Your task to perform on an android device: toggle translation in the chrome app Image 0: 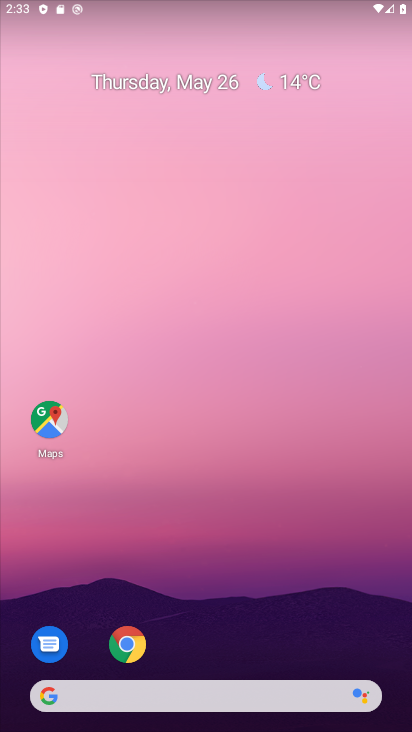
Step 0: drag from (311, 450) to (276, 216)
Your task to perform on an android device: toggle translation in the chrome app Image 1: 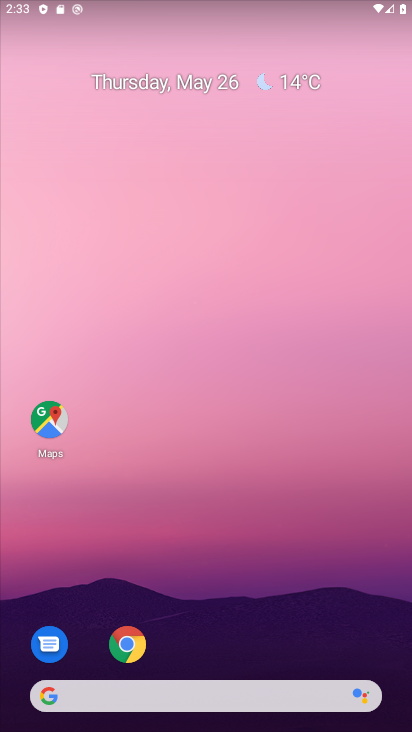
Step 1: drag from (312, 597) to (314, 231)
Your task to perform on an android device: toggle translation in the chrome app Image 2: 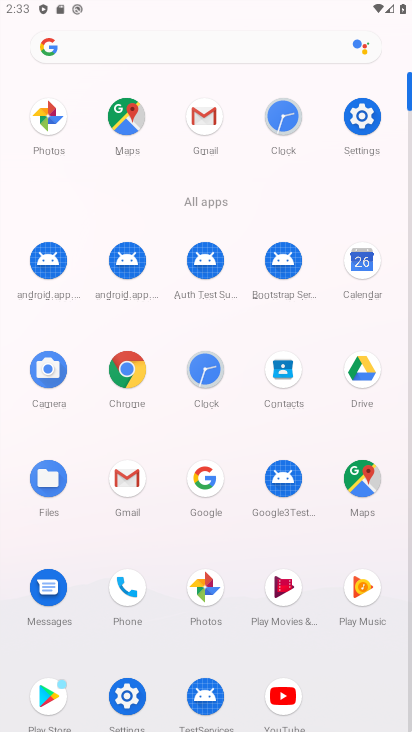
Step 2: click (123, 373)
Your task to perform on an android device: toggle translation in the chrome app Image 3: 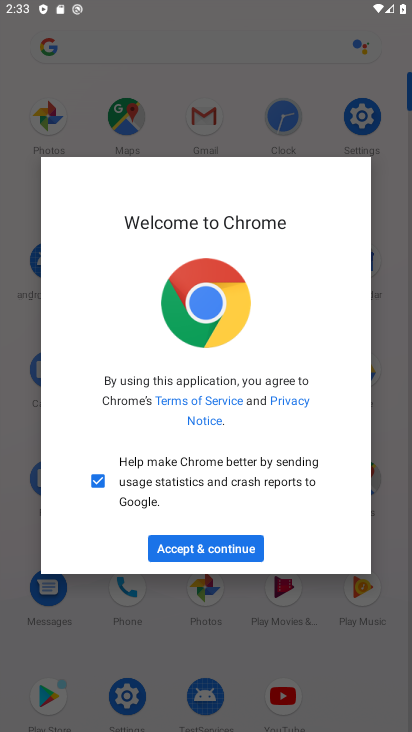
Step 3: click (231, 544)
Your task to perform on an android device: toggle translation in the chrome app Image 4: 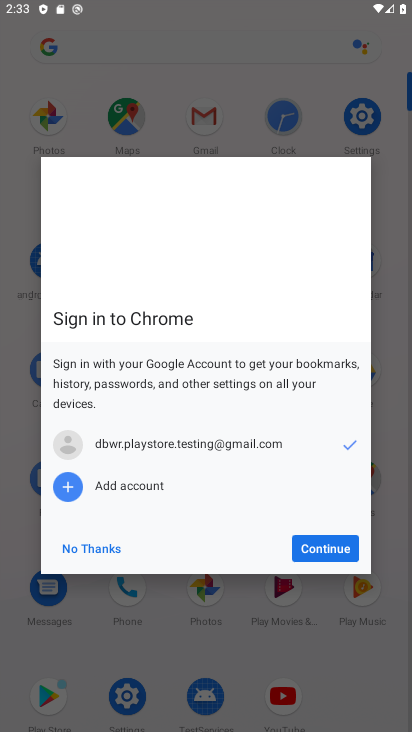
Step 4: click (322, 546)
Your task to perform on an android device: toggle translation in the chrome app Image 5: 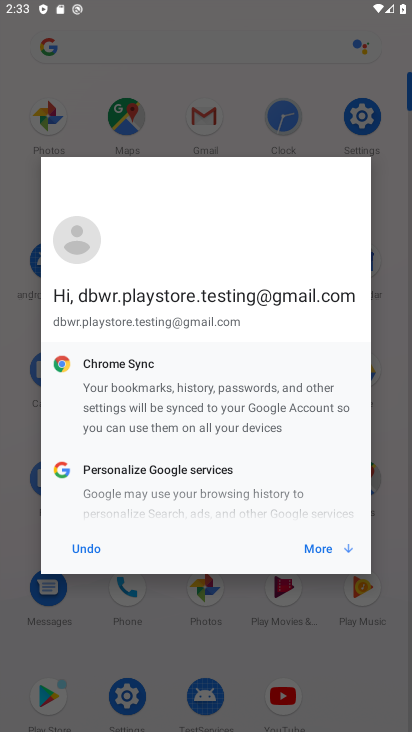
Step 5: click (320, 546)
Your task to perform on an android device: toggle translation in the chrome app Image 6: 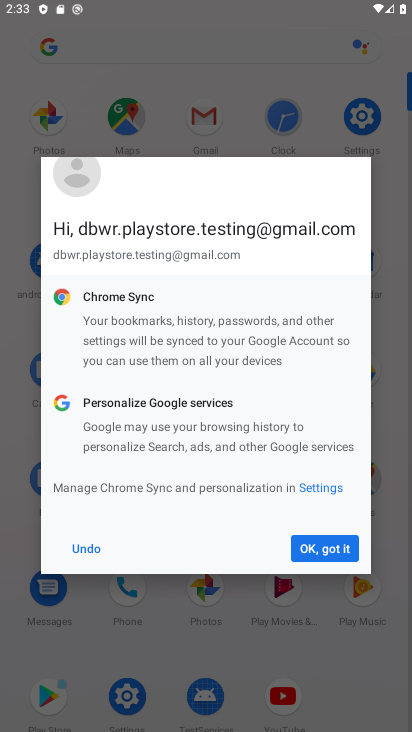
Step 6: click (320, 546)
Your task to perform on an android device: toggle translation in the chrome app Image 7: 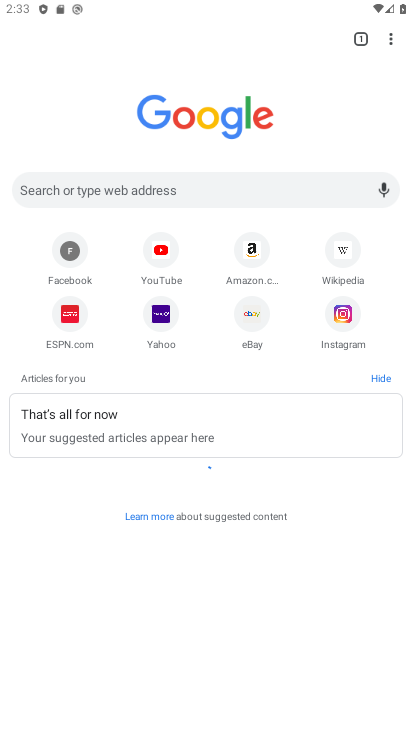
Step 7: drag from (391, 59) to (249, 326)
Your task to perform on an android device: toggle translation in the chrome app Image 8: 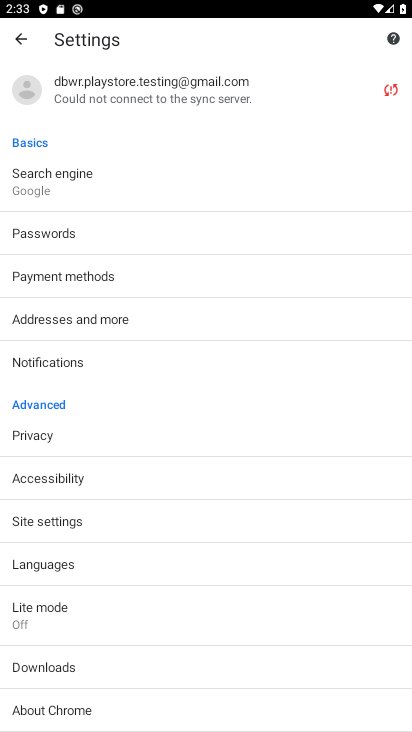
Step 8: drag from (149, 606) to (172, 428)
Your task to perform on an android device: toggle translation in the chrome app Image 9: 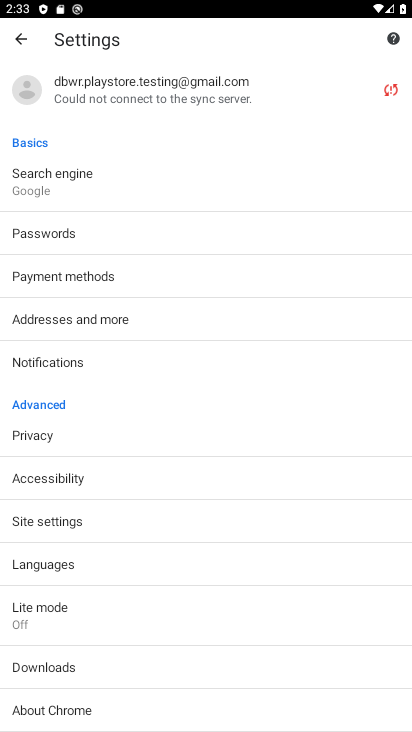
Step 9: click (85, 555)
Your task to perform on an android device: toggle translation in the chrome app Image 10: 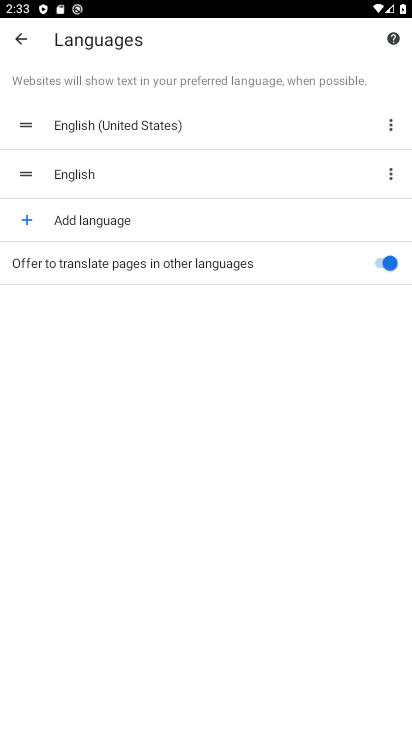
Step 10: click (388, 269)
Your task to perform on an android device: toggle translation in the chrome app Image 11: 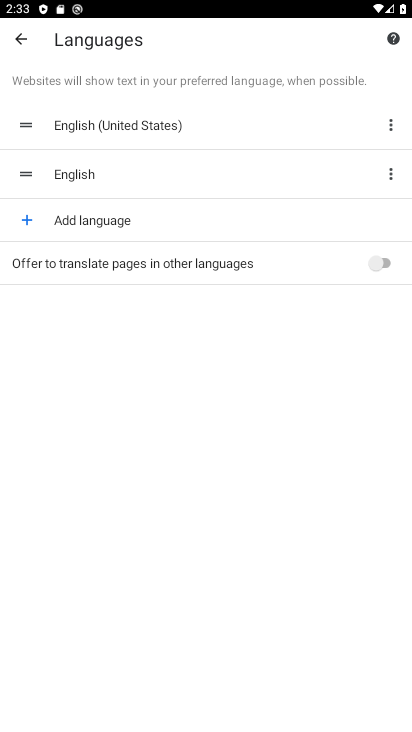
Step 11: task complete